Your task to perform on an android device: turn off sleep mode Image 0: 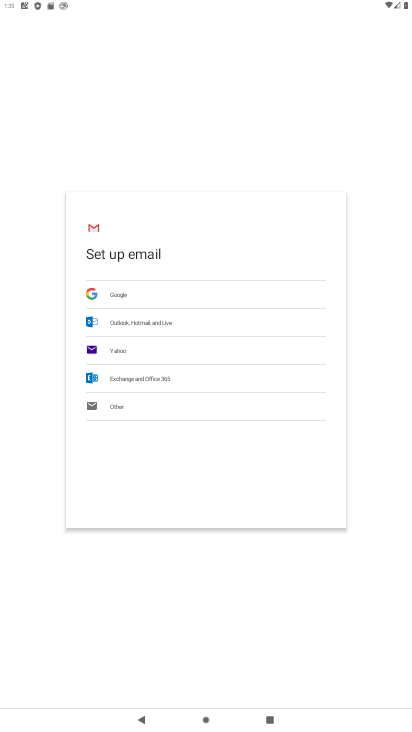
Step 0: press home button
Your task to perform on an android device: turn off sleep mode Image 1: 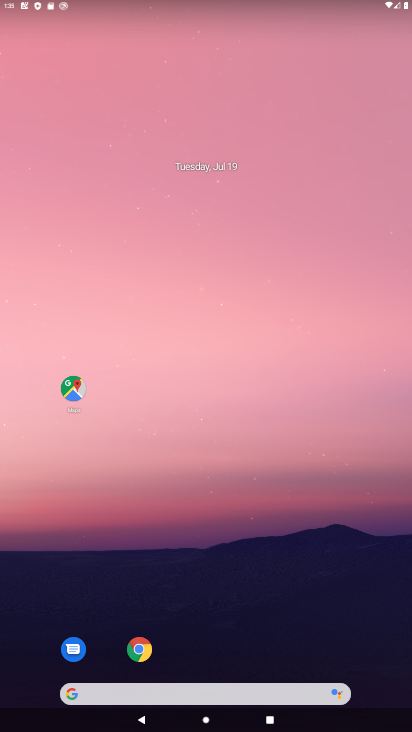
Step 1: task complete